Your task to perform on an android device: Go to internet settings Image 0: 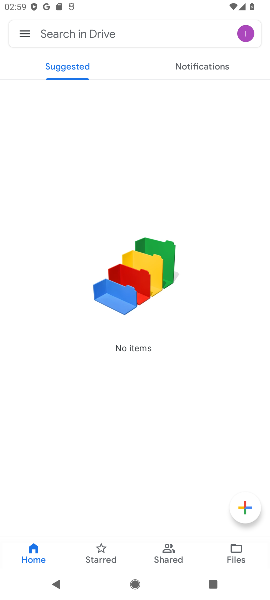
Step 0: press home button
Your task to perform on an android device: Go to internet settings Image 1: 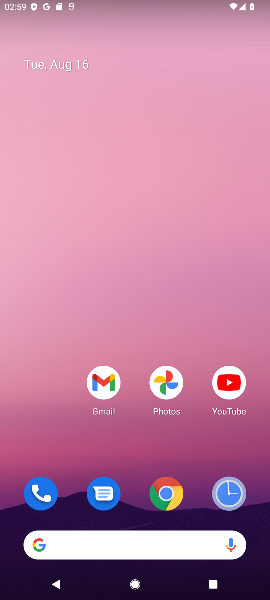
Step 1: drag from (61, 439) to (69, 72)
Your task to perform on an android device: Go to internet settings Image 2: 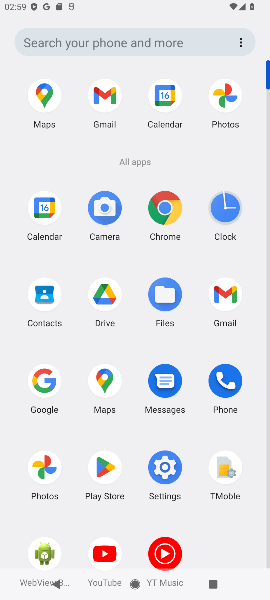
Step 2: click (155, 477)
Your task to perform on an android device: Go to internet settings Image 3: 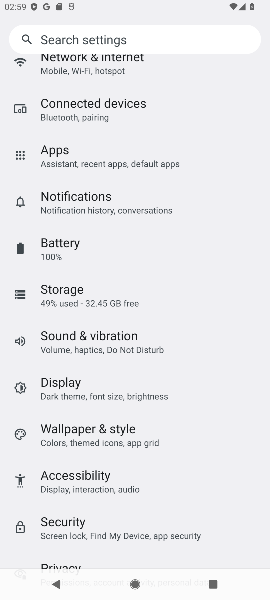
Step 3: drag from (234, 493) to (224, 303)
Your task to perform on an android device: Go to internet settings Image 4: 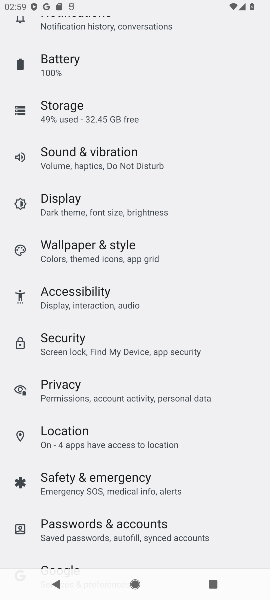
Step 4: drag from (228, 489) to (238, 348)
Your task to perform on an android device: Go to internet settings Image 5: 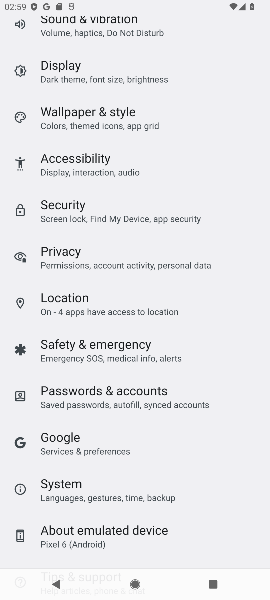
Step 5: drag from (237, 510) to (246, 333)
Your task to perform on an android device: Go to internet settings Image 6: 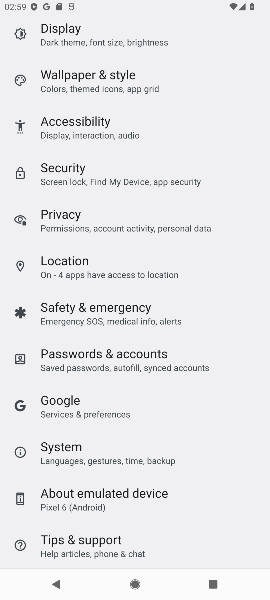
Step 6: drag from (235, 472) to (262, 311)
Your task to perform on an android device: Go to internet settings Image 7: 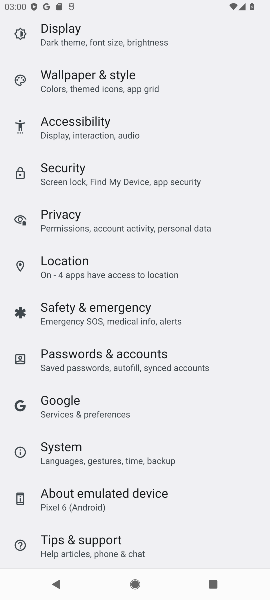
Step 7: drag from (216, 497) to (241, 290)
Your task to perform on an android device: Go to internet settings Image 8: 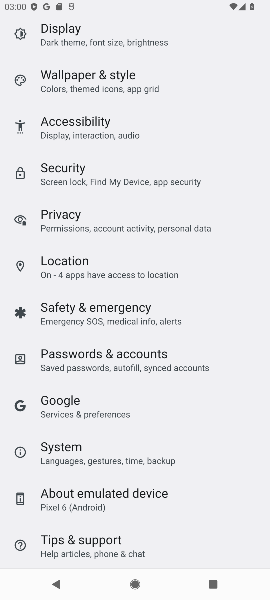
Step 8: drag from (220, 243) to (228, 433)
Your task to perform on an android device: Go to internet settings Image 9: 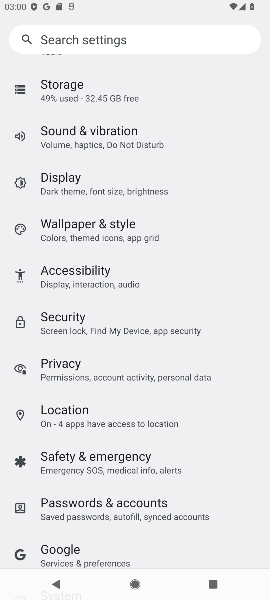
Step 9: drag from (231, 234) to (236, 403)
Your task to perform on an android device: Go to internet settings Image 10: 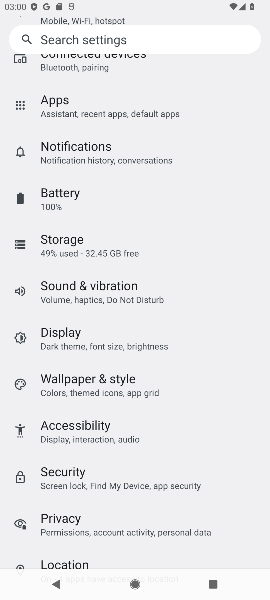
Step 10: drag from (228, 205) to (228, 342)
Your task to perform on an android device: Go to internet settings Image 11: 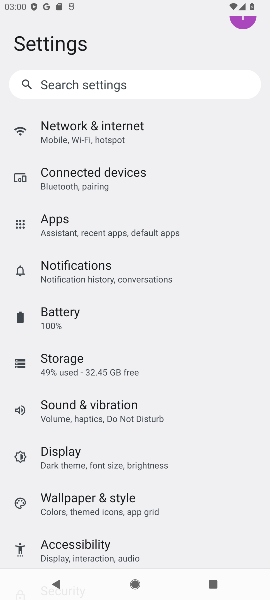
Step 11: click (124, 127)
Your task to perform on an android device: Go to internet settings Image 12: 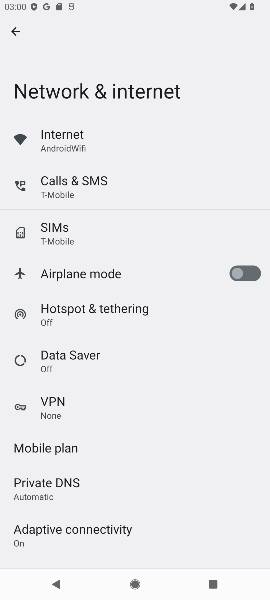
Step 12: task complete